Your task to perform on an android device: set the timer Image 0: 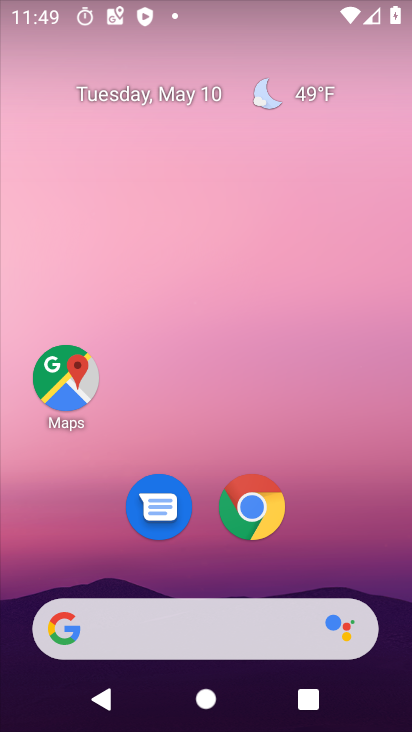
Step 0: drag from (222, 546) to (198, 74)
Your task to perform on an android device: set the timer Image 1: 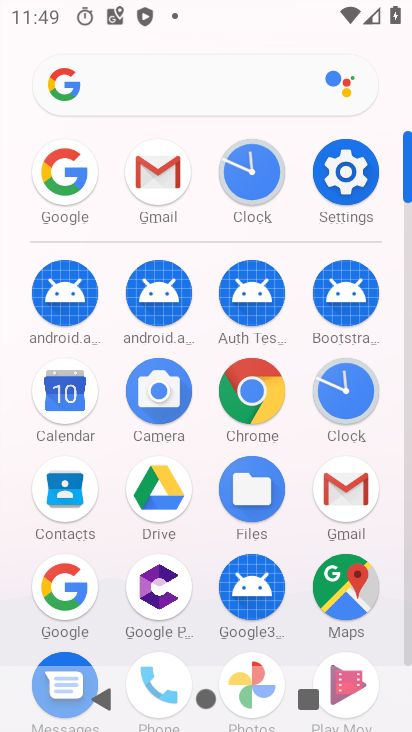
Step 1: click (347, 405)
Your task to perform on an android device: set the timer Image 2: 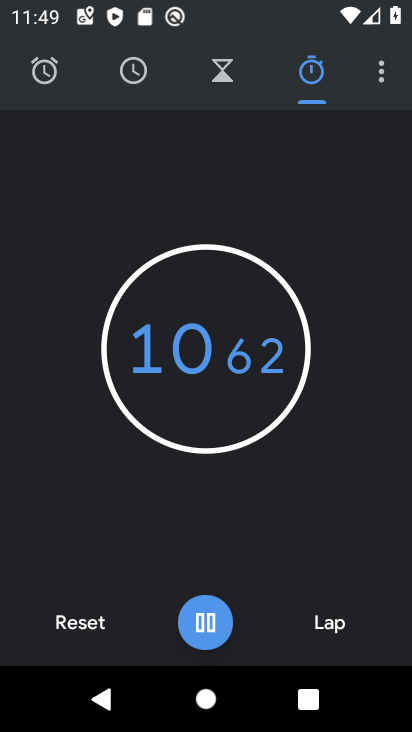
Step 2: click (227, 67)
Your task to perform on an android device: set the timer Image 3: 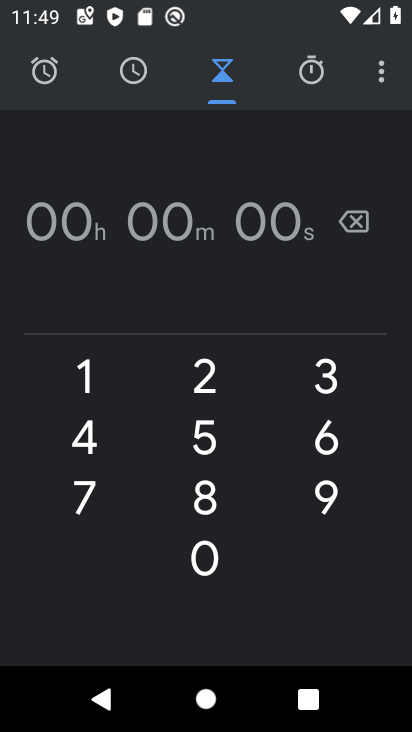
Step 3: click (217, 370)
Your task to perform on an android device: set the timer Image 4: 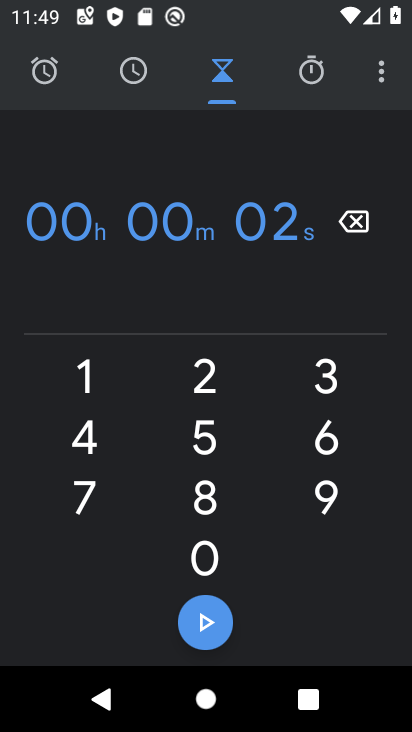
Step 4: task complete